Your task to perform on an android device: Open ESPN.com Image 0: 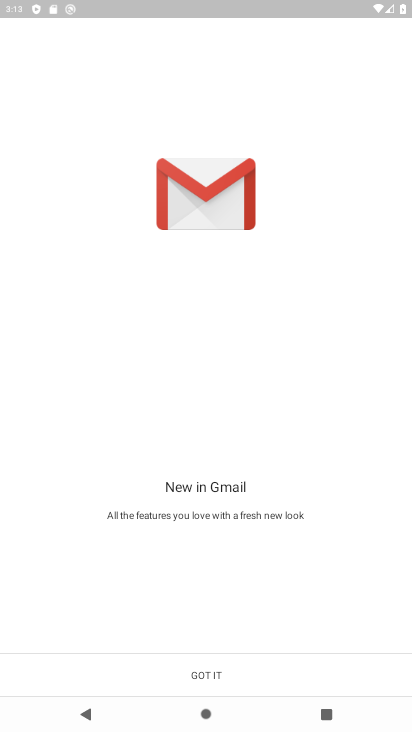
Step 0: press home button
Your task to perform on an android device: Open ESPN.com Image 1: 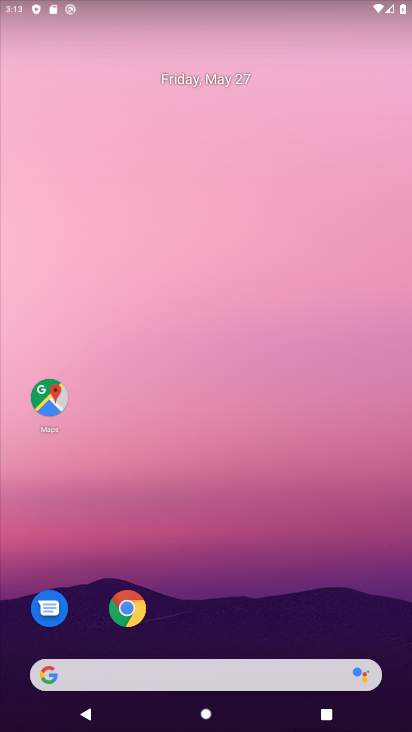
Step 1: drag from (153, 587) to (222, 246)
Your task to perform on an android device: Open ESPN.com Image 2: 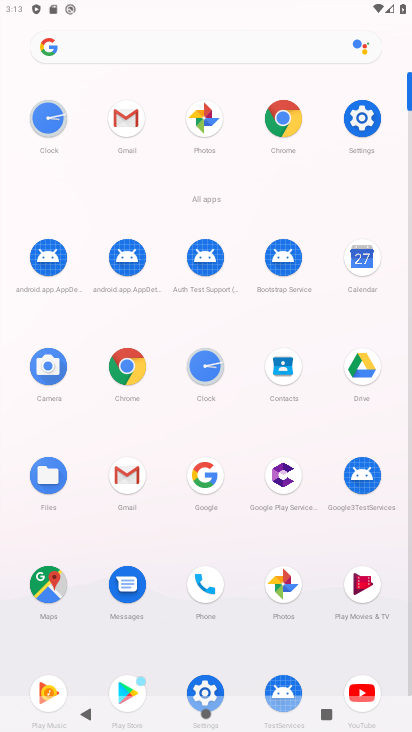
Step 2: click (129, 369)
Your task to perform on an android device: Open ESPN.com Image 3: 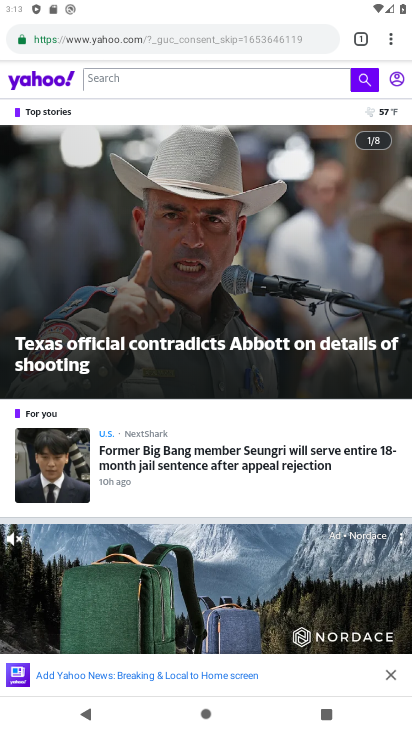
Step 3: click (361, 35)
Your task to perform on an android device: Open ESPN.com Image 4: 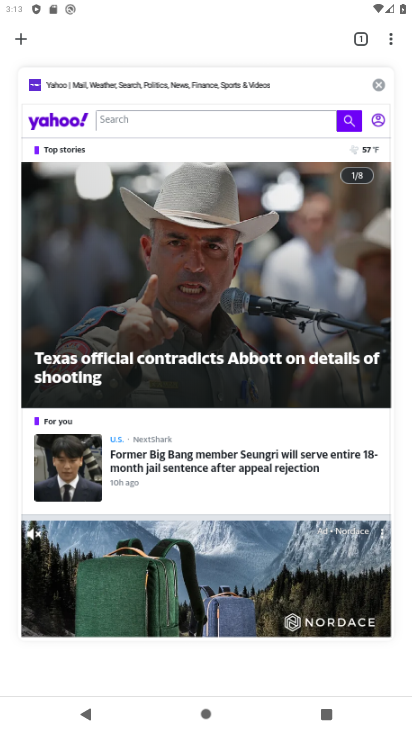
Step 4: click (377, 87)
Your task to perform on an android device: Open ESPN.com Image 5: 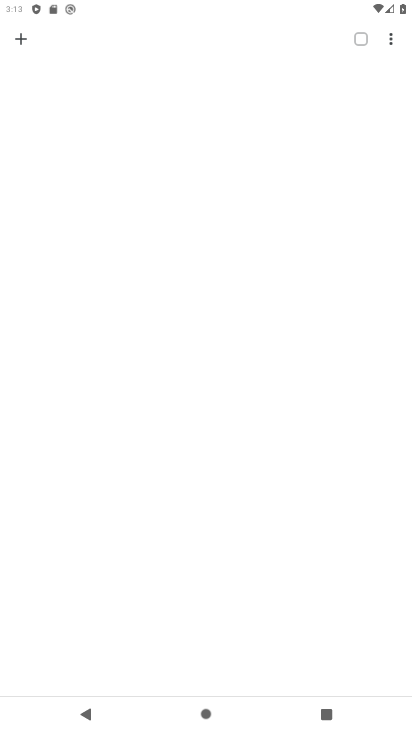
Step 5: click (17, 40)
Your task to perform on an android device: Open ESPN.com Image 6: 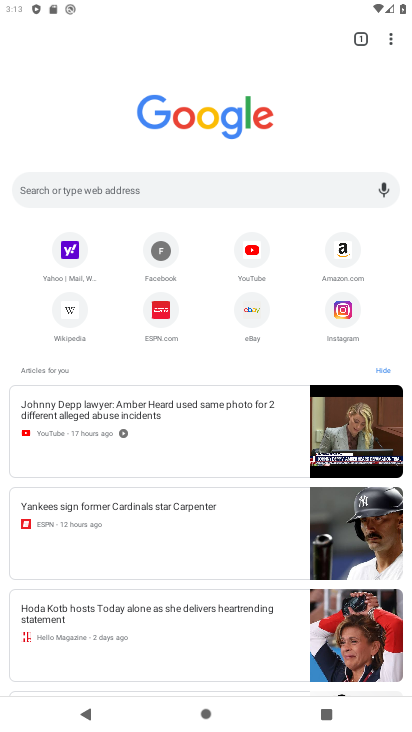
Step 6: click (155, 311)
Your task to perform on an android device: Open ESPN.com Image 7: 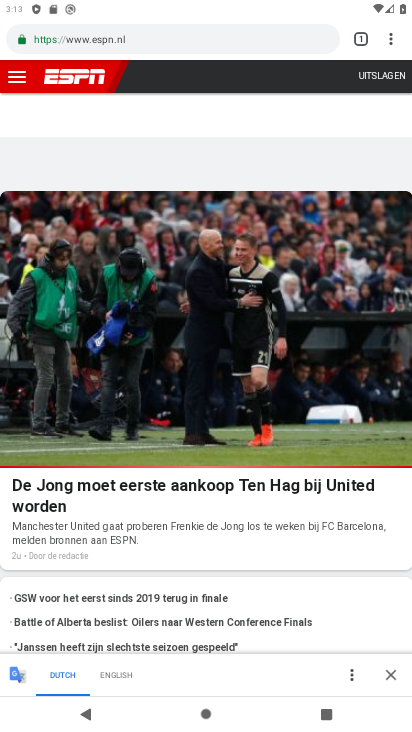
Step 7: task complete